Your task to perform on an android device: turn on airplane mode Image 0: 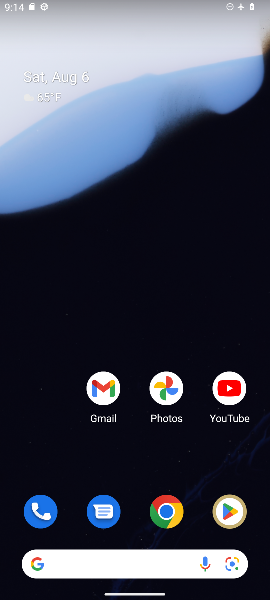
Step 0: drag from (179, 2) to (205, 588)
Your task to perform on an android device: turn on airplane mode Image 1: 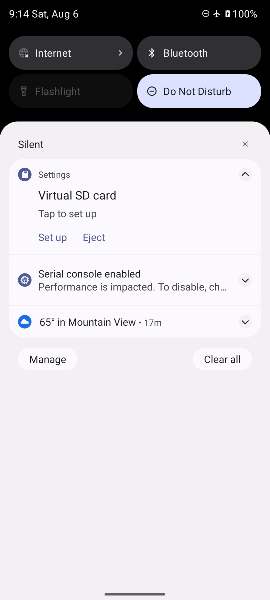
Step 1: task complete